Your task to perform on an android device: open app "Pinterest" (install if not already installed) Image 0: 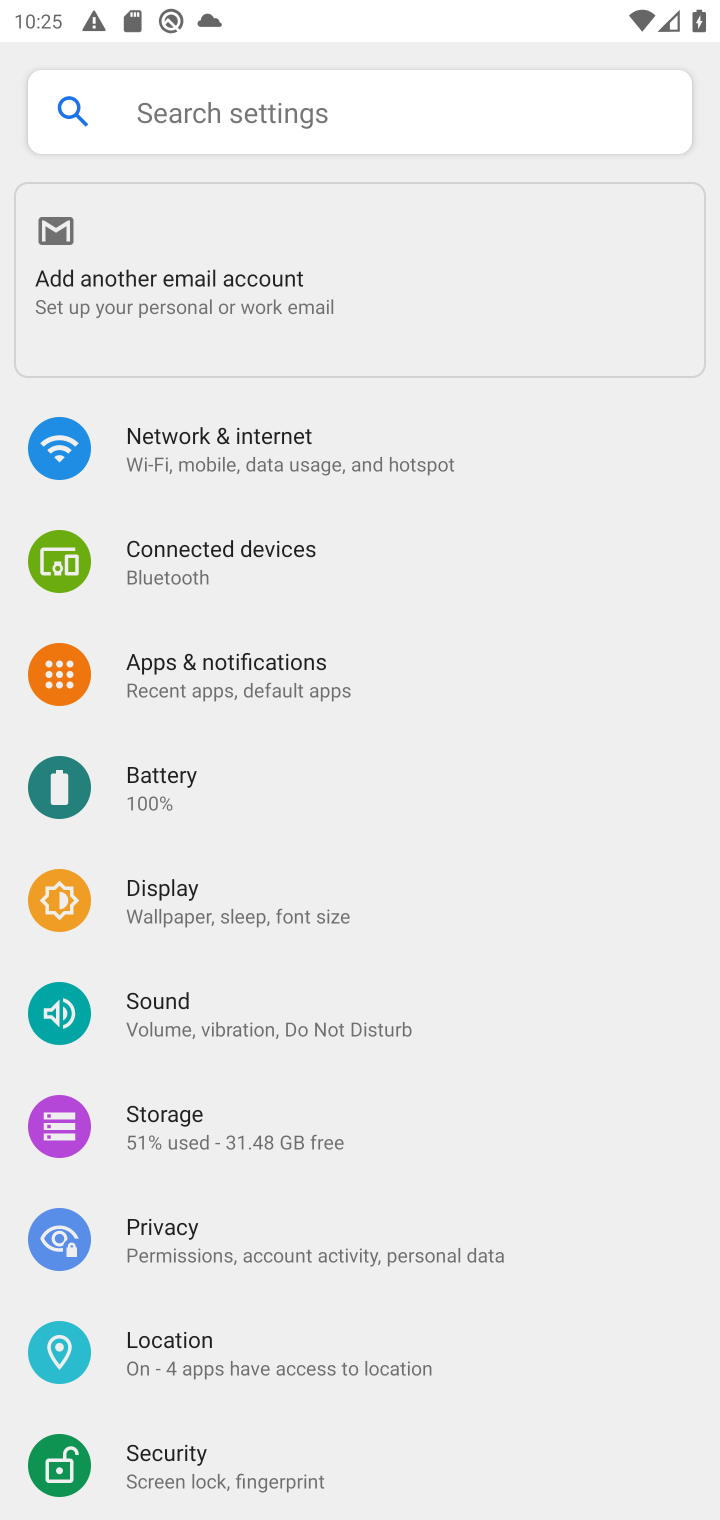
Step 0: press home button
Your task to perform on an android device: open app "Pinterest" (install if not already installed) Image 1: 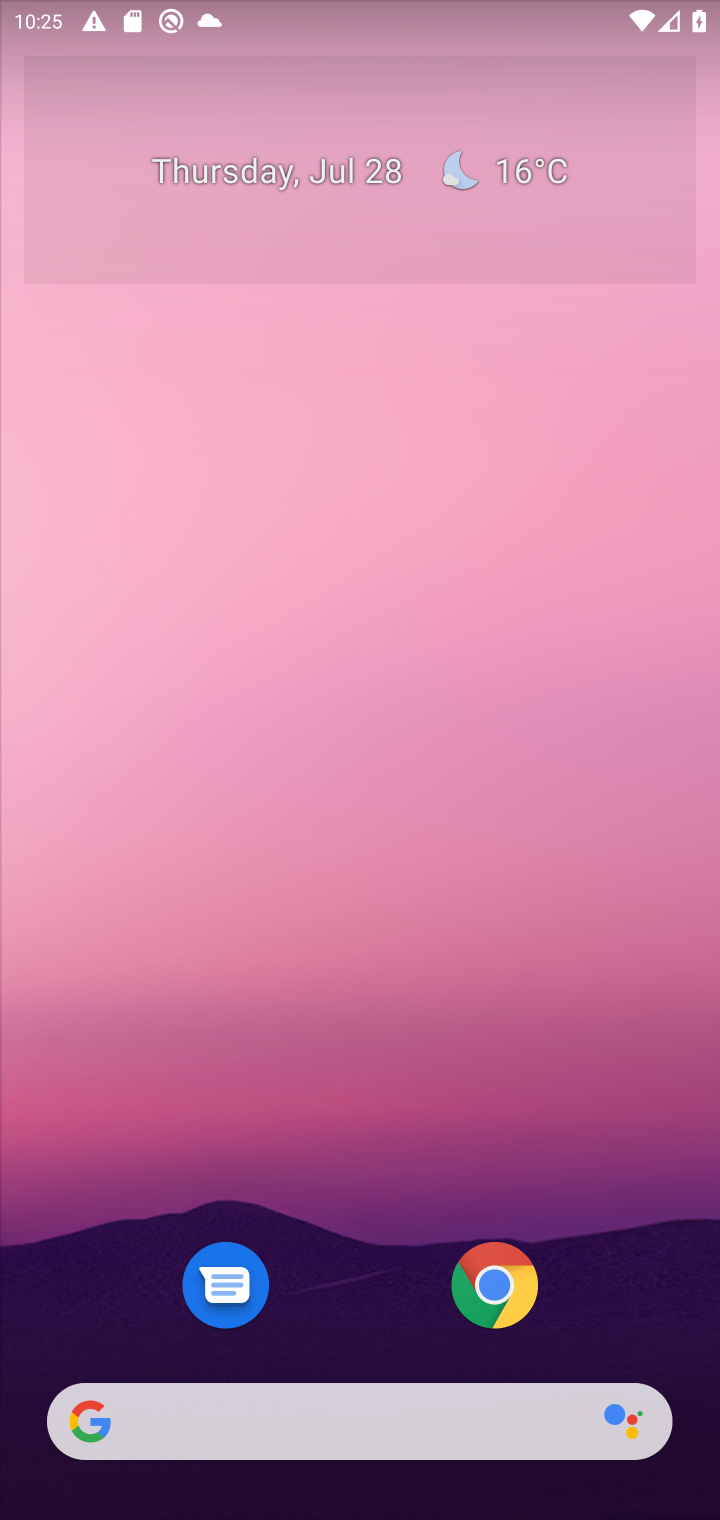
Step 1: press home button
Your task to perform on an android device: open app "Pinterest" (install if not already installed) Image 2: 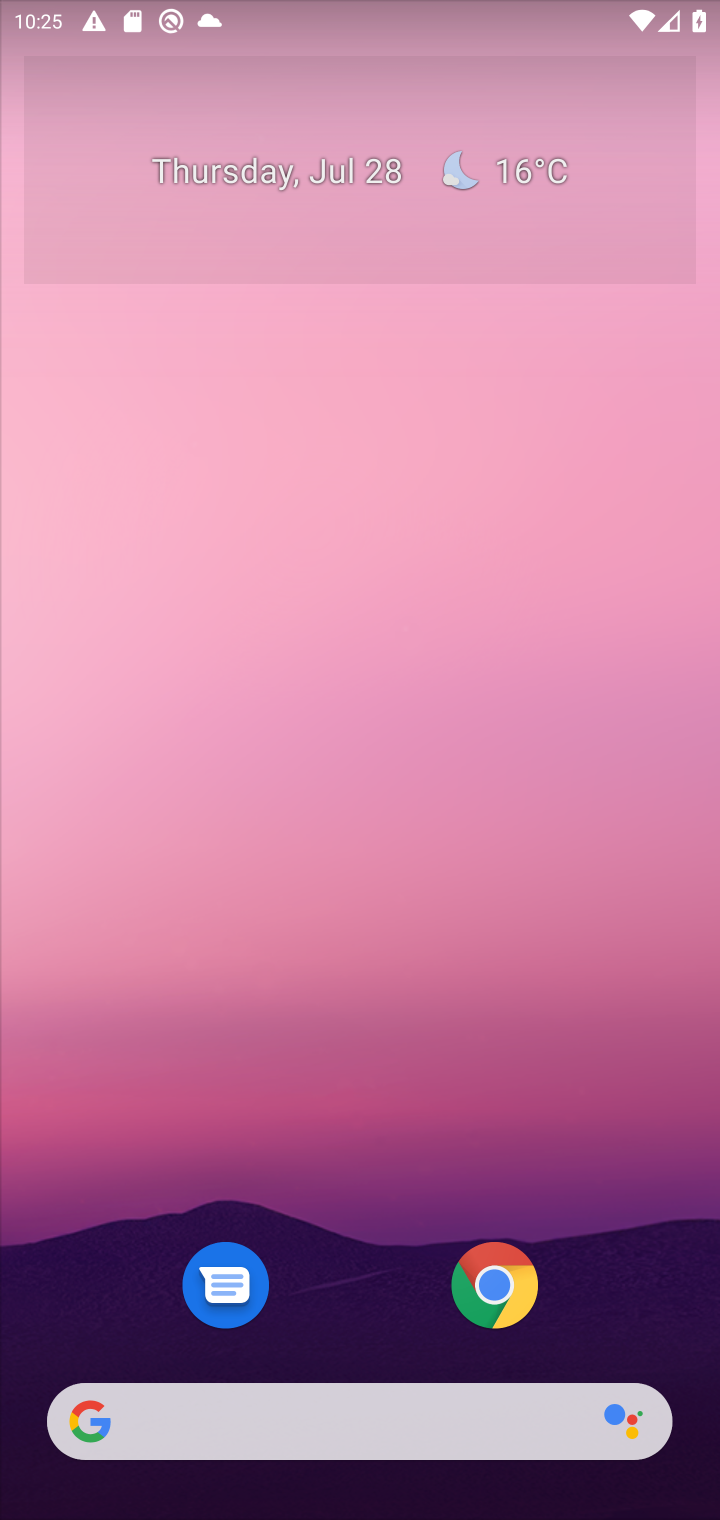
Step 2: drag from (619, 837) to (523, 136)
Your task to perform on an android device: open app "Pinterest" (install if not already installed) Image 3: 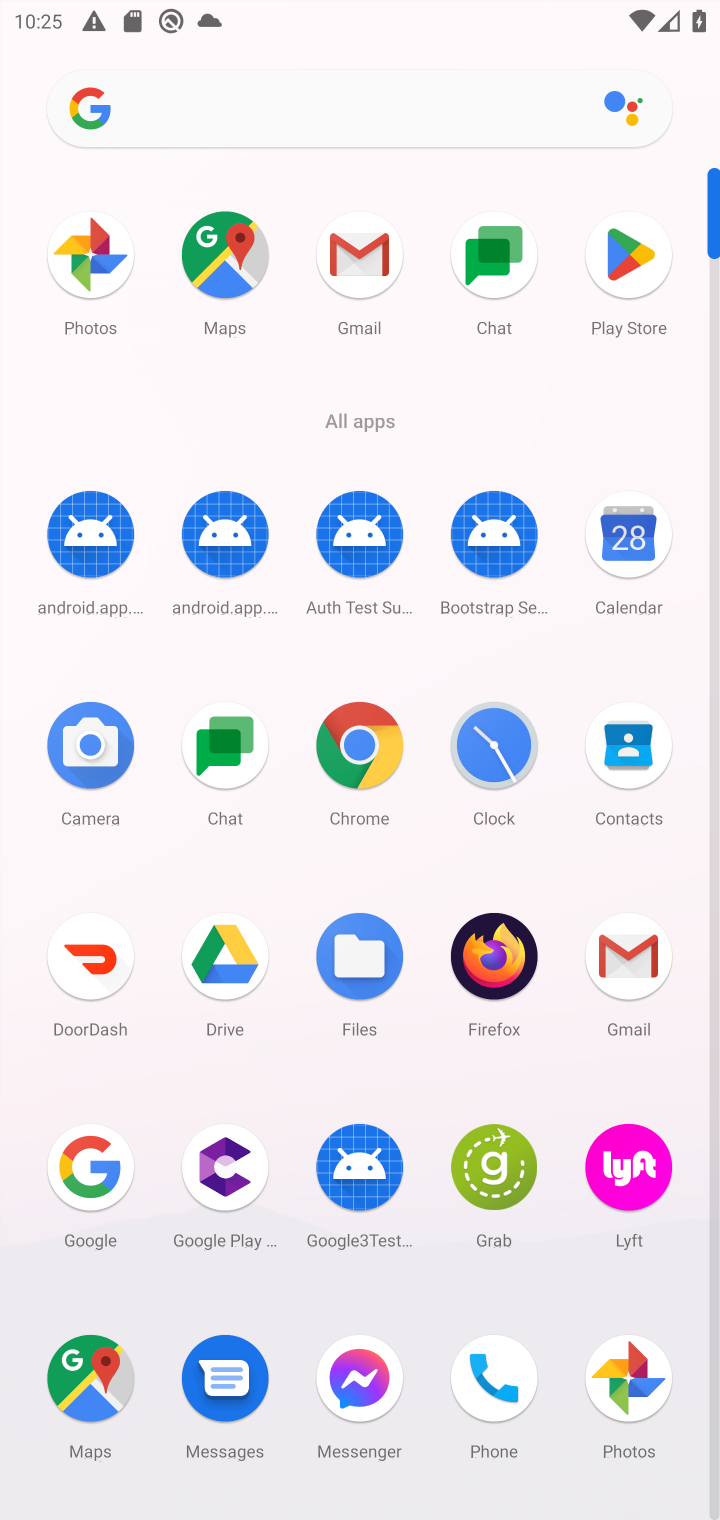
Step 3: click (655, 313)
Your task to perform on an android device: open app "Pinterest" (install if not already installed) Image 4: 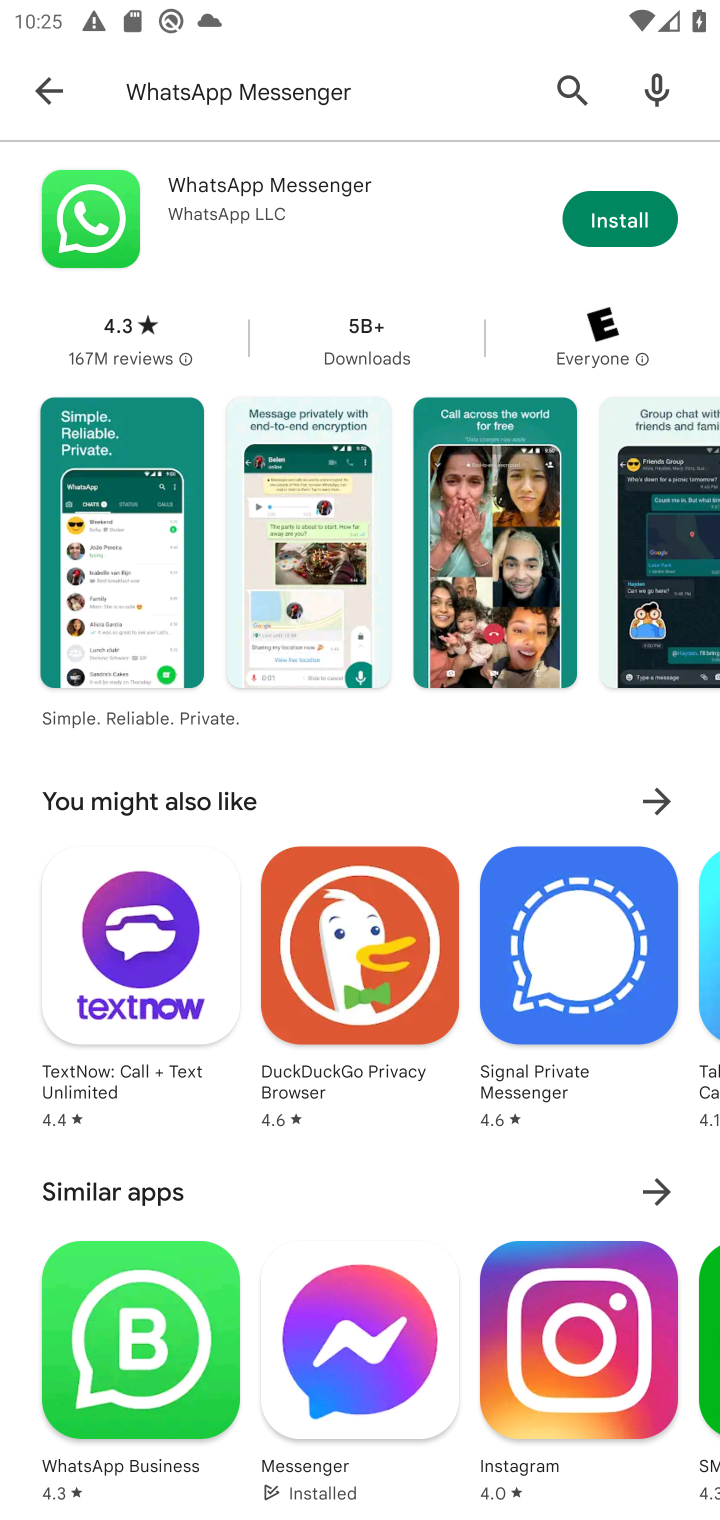
Step 4: click (396, 81)
Your task to perform on an android device: open app "Pinterest" (install if not already installed) Image 5: 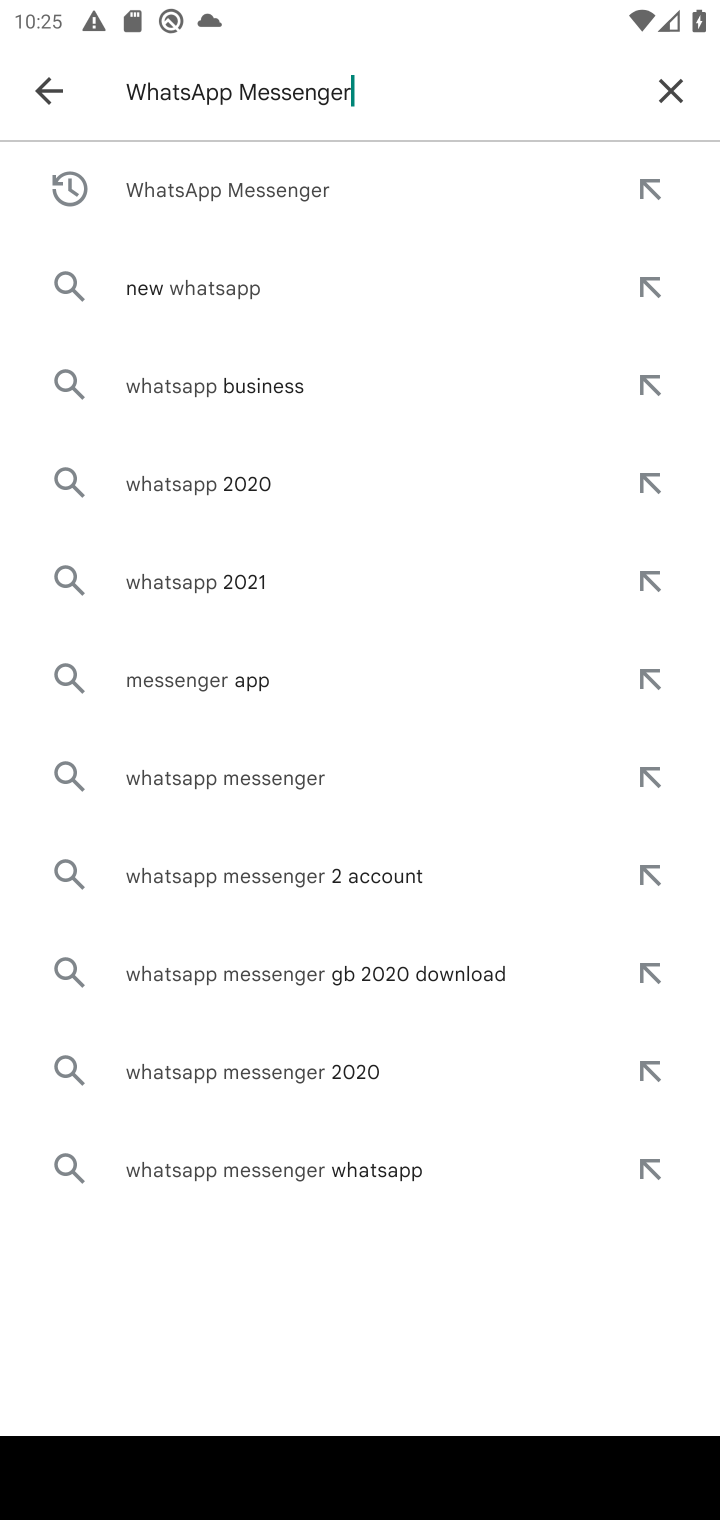
Step 5: click (671, 92)
Your task to perform on an android device: open app "Pinterest" (install if not already installed) Image 6: 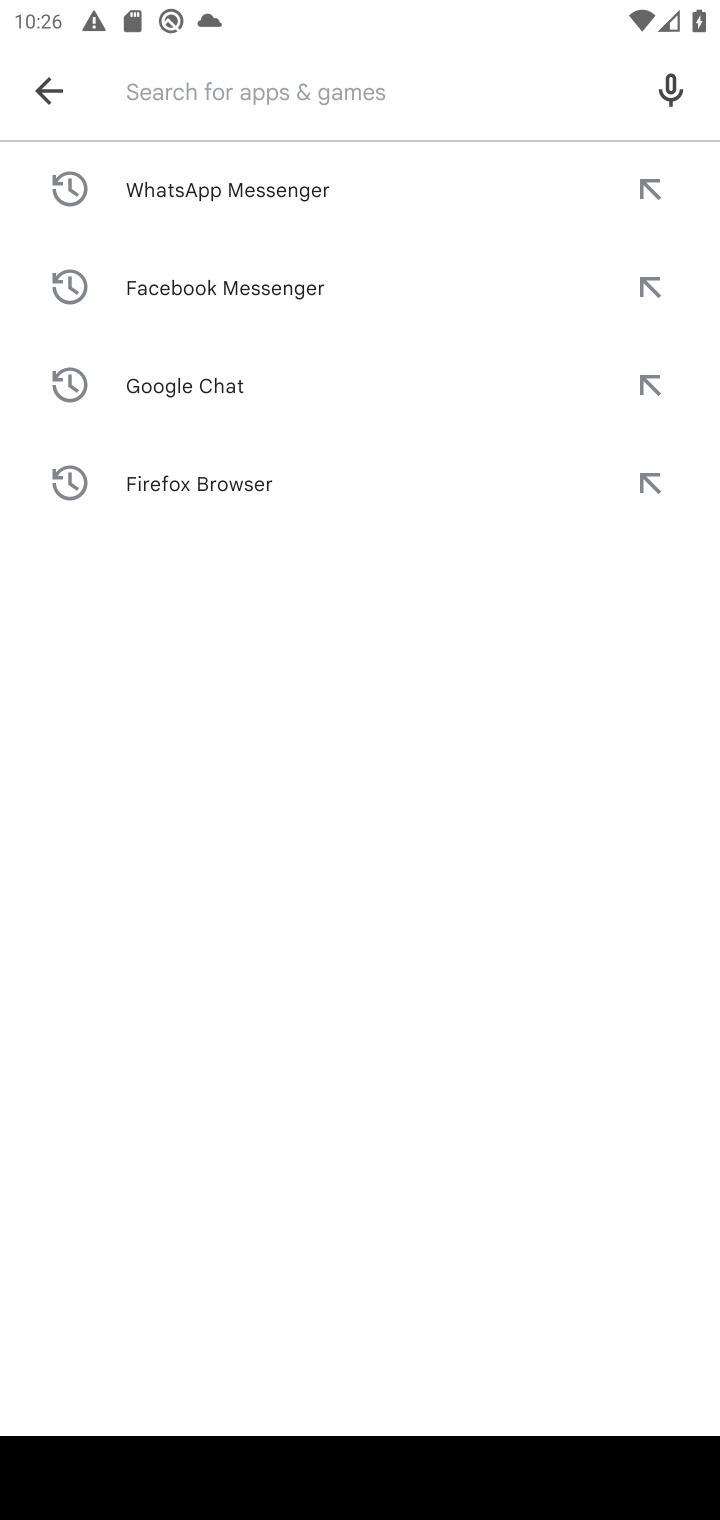
Step 6: type "Pinterest"
Your task to perform on an android device: open app "Pinterest" (install if not already installed) Image 7: 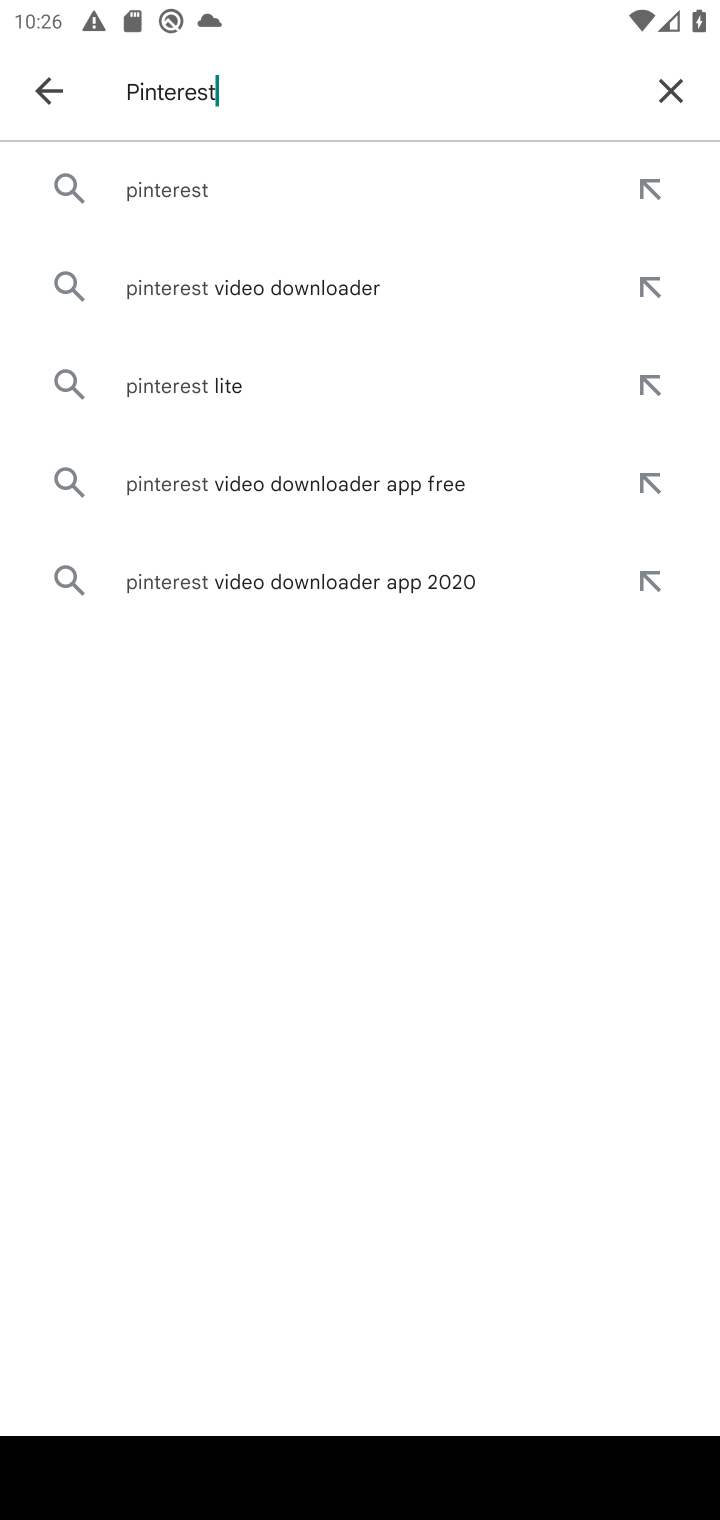
Step 7: press enter
Your task to perform on an android device: open app "Pinterest" (install if not already installed) Image 8: 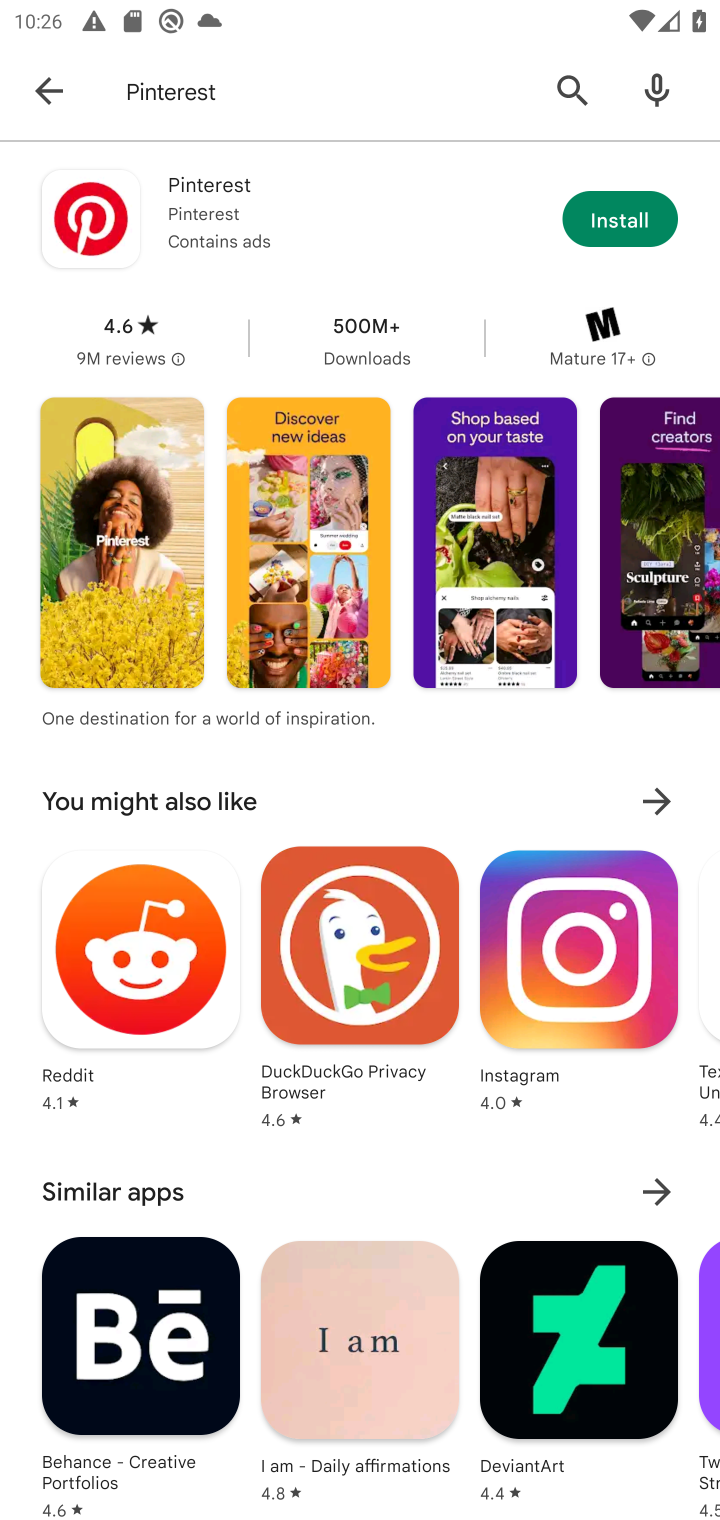
Step 8: click (594, 221)
Your task to perform on an android device: open app "Pinterest" (install if not already installed) Image 9: 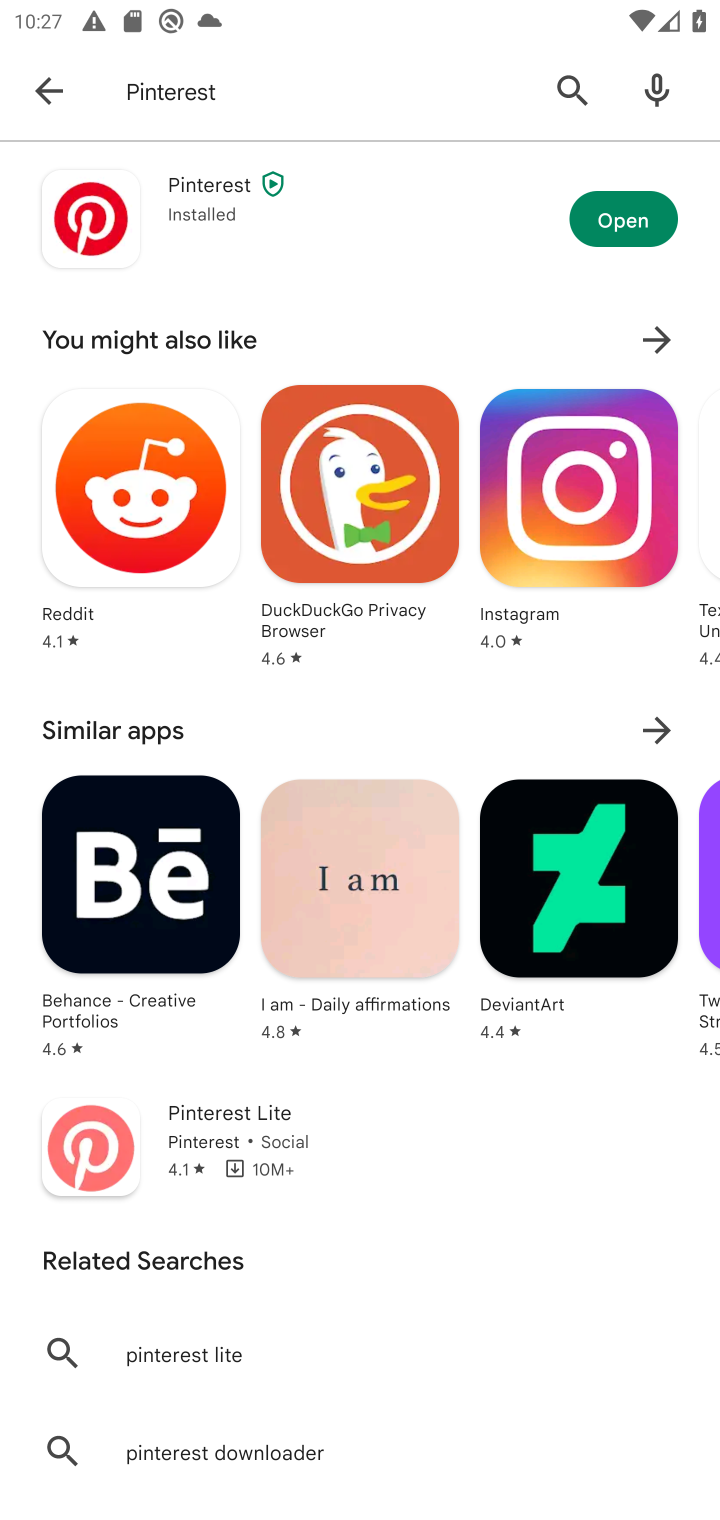
Step 9: click (628, 233)
Your task to perform on an android device: open app "Pinterest" (install if not already installed) Image 10: 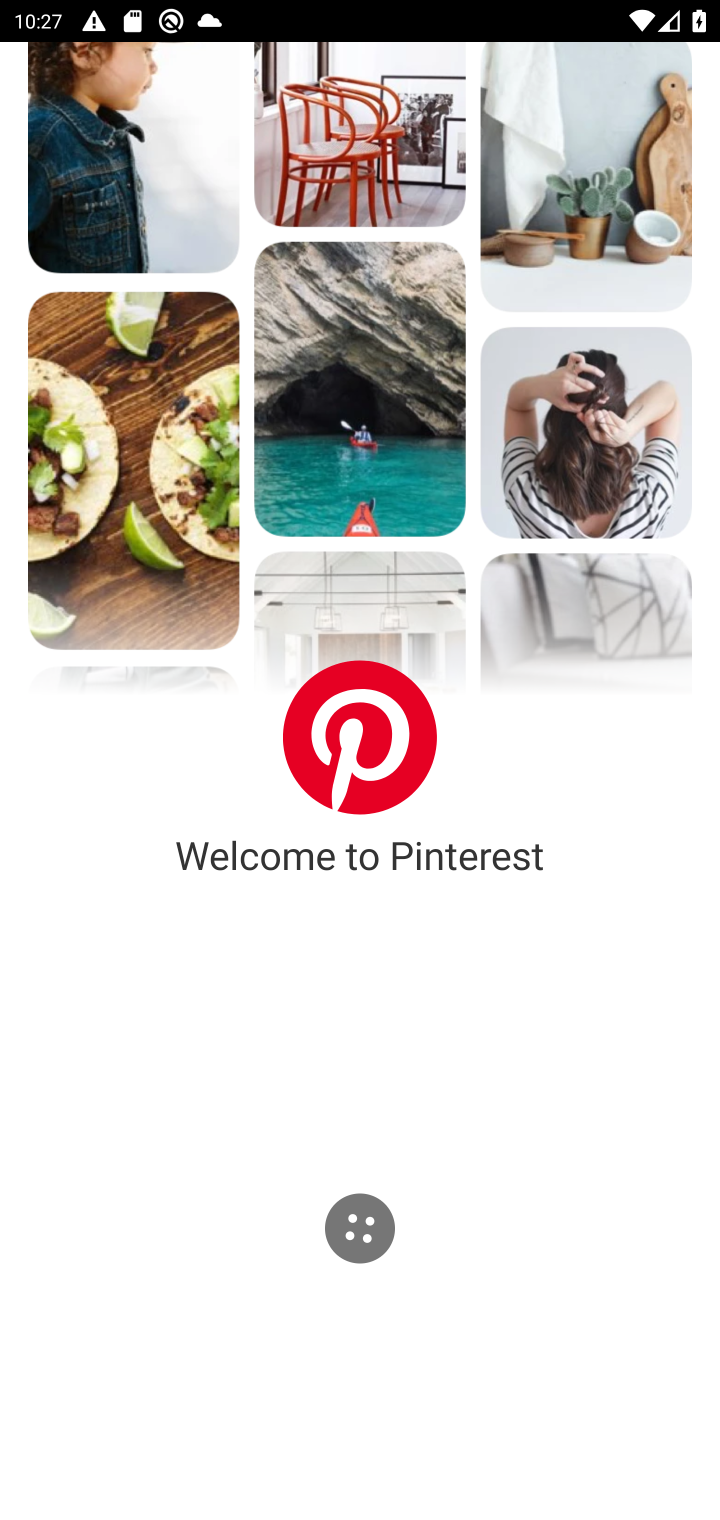
Step 10: task complete